Your task to perform on an android device: turn notification dots on Image 0: 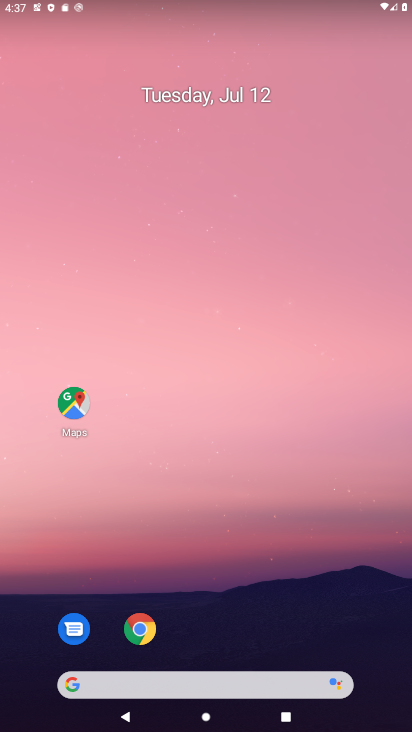
Step 0: press home button
Your task to perform on an android device: turn notification dots on Image 1: 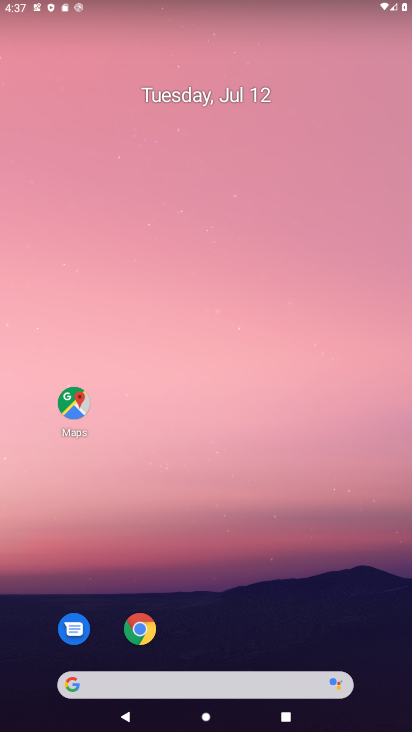
Step 1: press home button
Your task to perform on an android device: turn notification dots on Image 2: 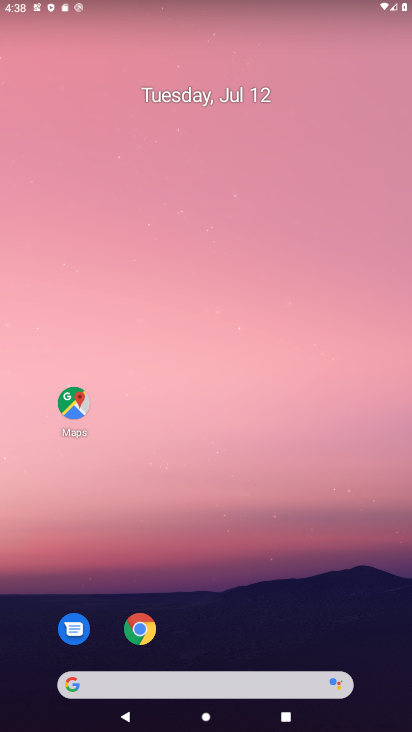
Step 2: press home button
Your task to perform on an android device: turn notification dots on Image 3: 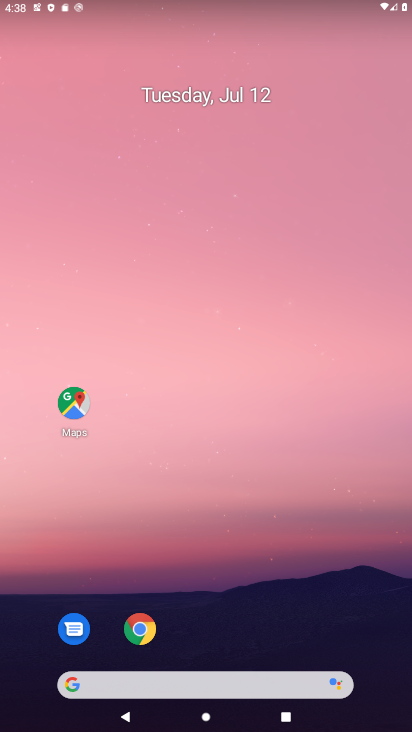
Step 3: drag from (267, 649) to (236, 98)
Your task to perform on an android device: turn notification dots on Image 4: 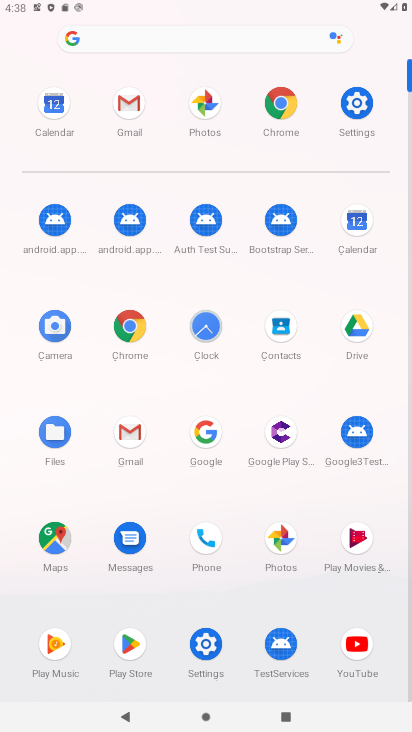
Step 4: click (350, 108)
Your task to perform on an android device: turn notification dots on Image 5: 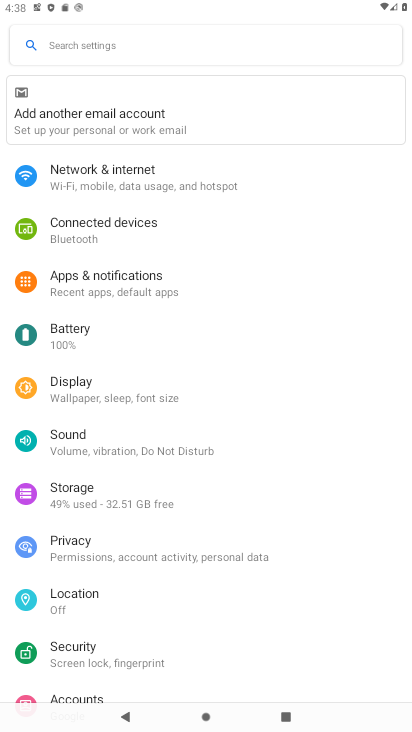
Step 5: click (102, 277)
Your task to perform on an android device: turn notification dots on Image 6: 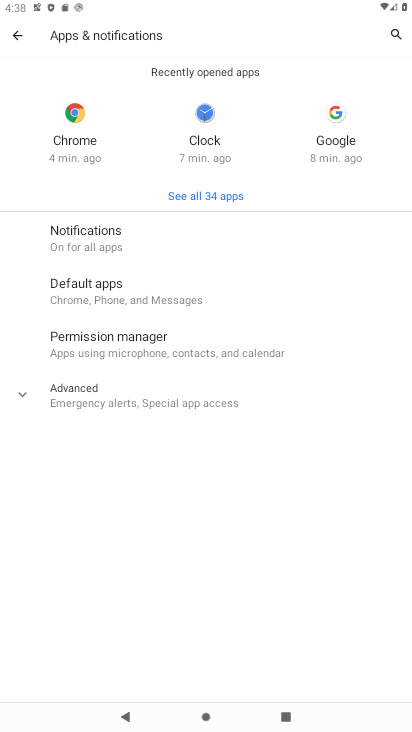
Step 6: click (97, 240)
Your task to perform on an android device: turn notification dots on Image 7: 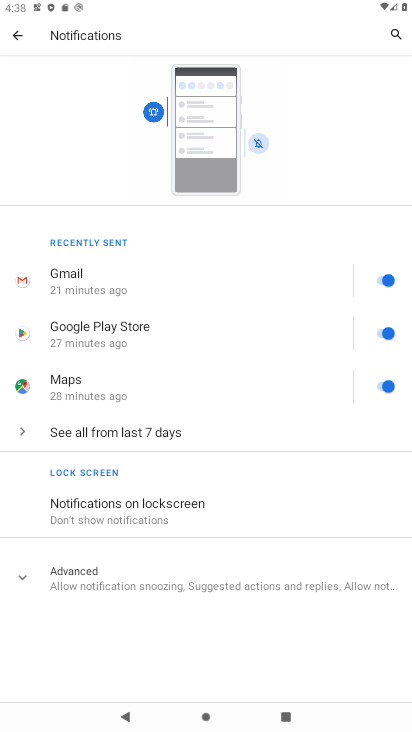
Step 7: click (74, 578)
Your task to perform on an android device: turn notification dots on Image 8: 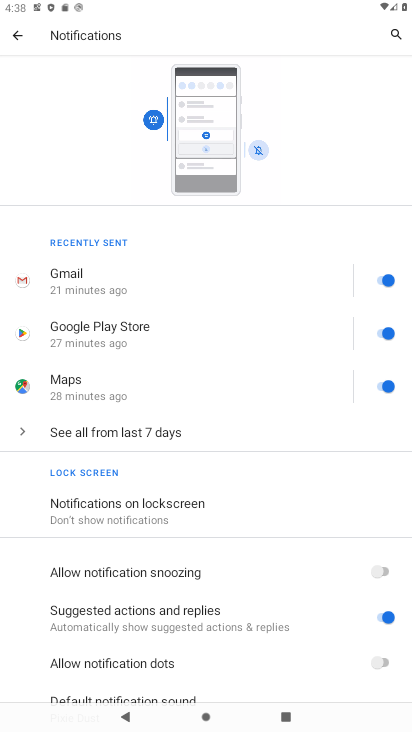
Step 8: drag from (249, 553) to (281, 217)
Your task to perform on an android device: turn notification dots on Image 9: 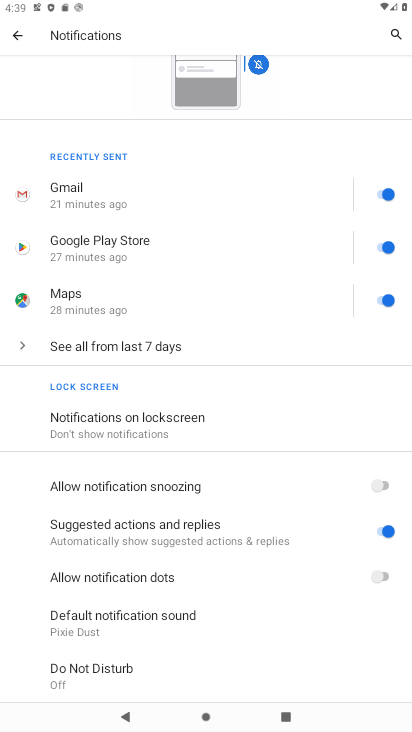
Step 9: click (379, 574)
Your task to perform on an android device: turn notification dots on Image 10: 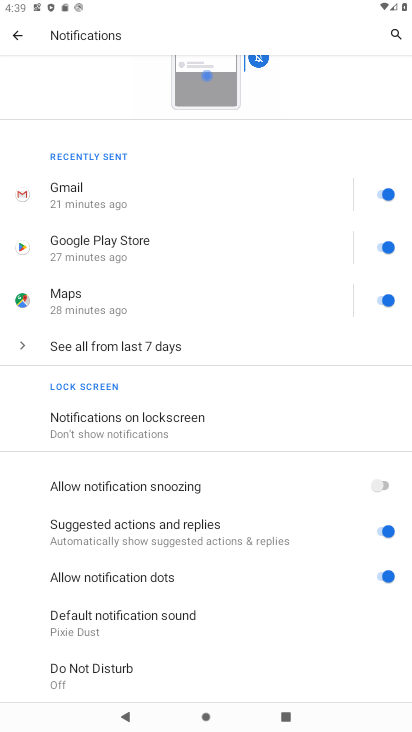
Step 10: task complete